Your task to perform on an android device: Search for vegetarian restaurants on Maps Image 0: 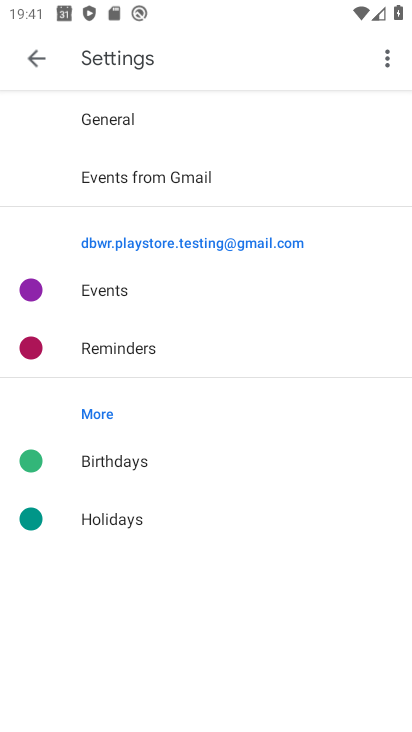
Step 0: press home button
Your task to perform on an android device: Search for vegetarian restaurants on Maps Image 1: 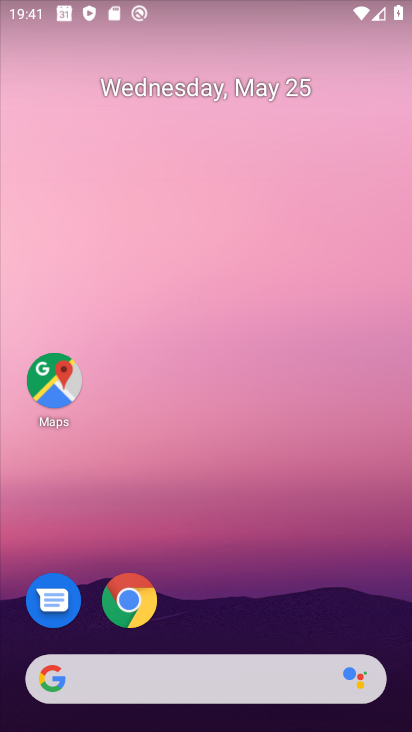
Step 1: drag from (377, 570) to (310, 251)
Your task to perform on an android device: Search for vegetarian restaurants on Maps Image 2: 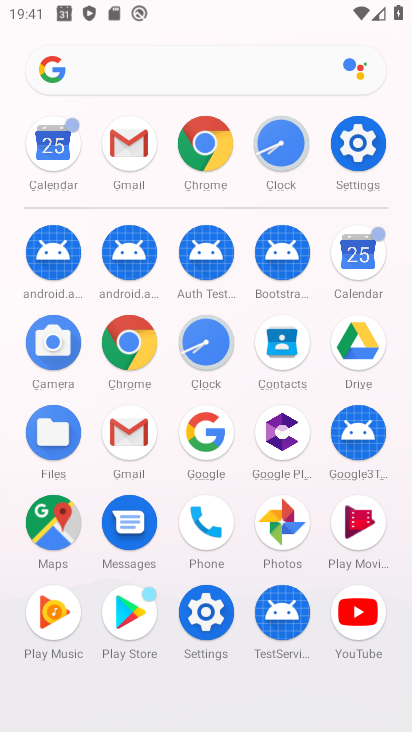
Step 2: click (38, 520)
Your task to perform on an android device: Search for vegetarian restaurants on Maps Image 3: 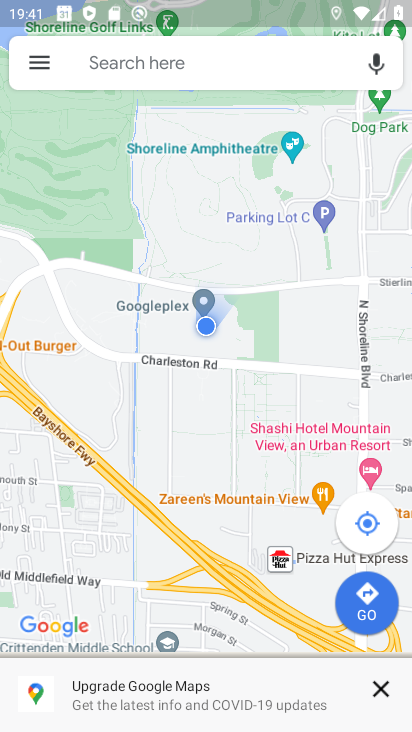
Step 3: click (149, 64)
Your task to perform on an android device: Search for vegetarian restaurants on Maps Image 4: 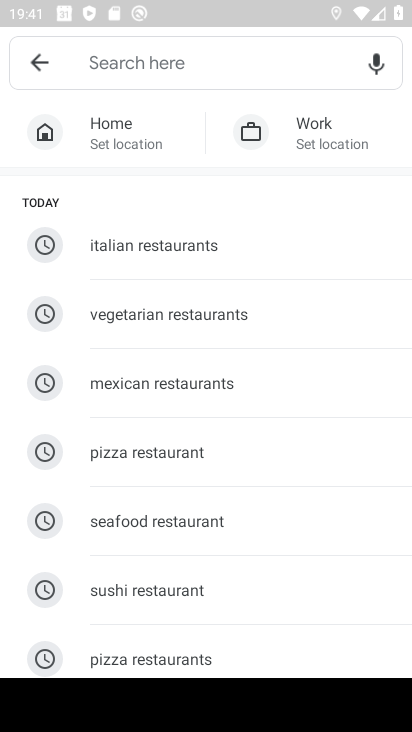
Step 4: type "vegetarian restaurants "
Your task to perform on an android device: Search for vegetarian restaurants on Maps Image 5: 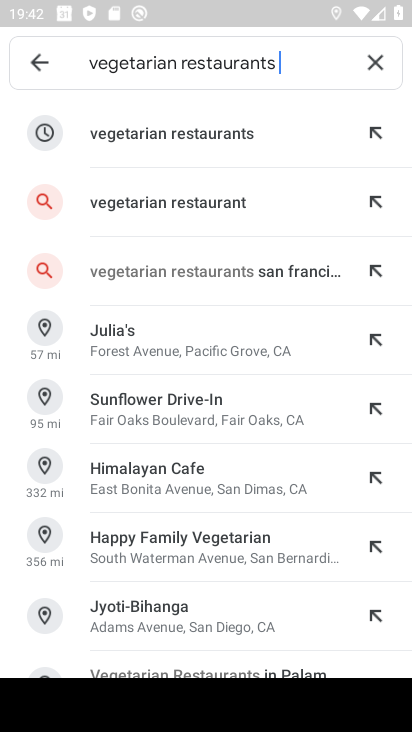
Step 5: click (196, 132)
Your task to perform on an android device: Search for vegetarian restaurants on Maps Image 6: 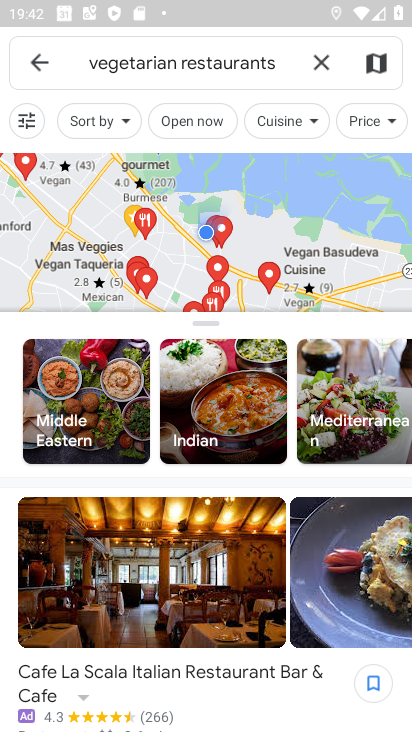
Step 6: task complete